Your task to perform on an android device: turn off sleep mode Image 0: 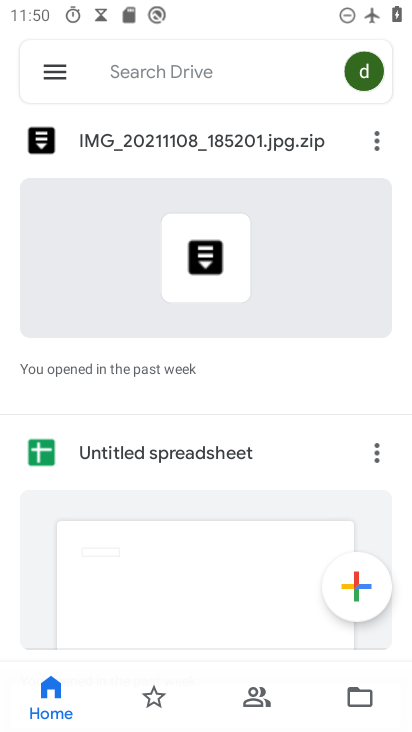
Step 0: press home button
Your task to perform on an android device: turn off sleep mode Image 1: 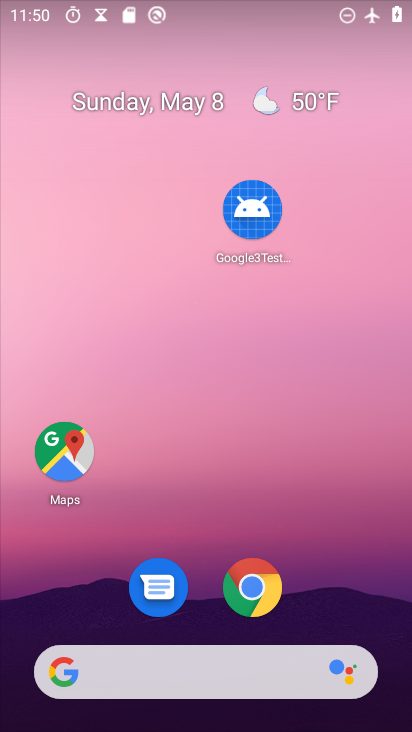
Step 1: drag from (193, 546) to (59, 101)
Your task to perform on an android device: turn off sleep mode Image 2: 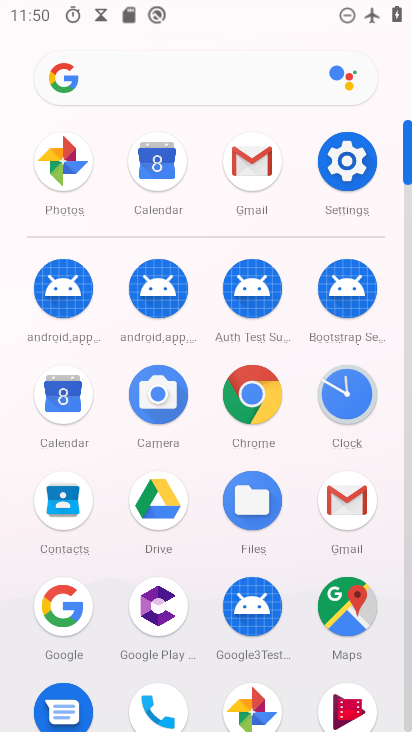
Step 2: click (340, 177)
Your task to perform on an android device: turn off sleep mode Image 3: 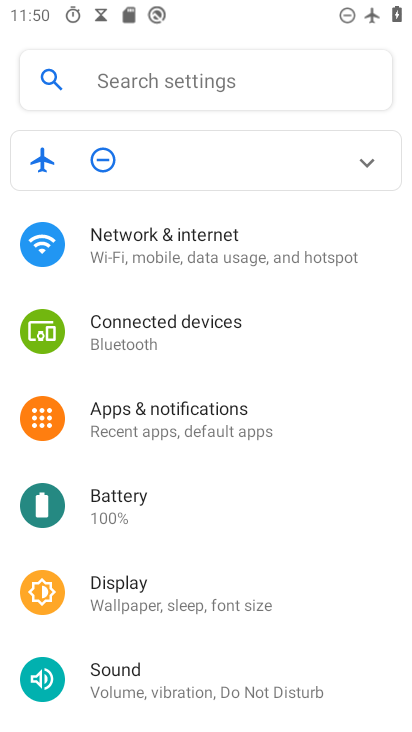
Step 3: click (210, 596)
Your task to perform on an android device: turn off sleep mode Image 4: 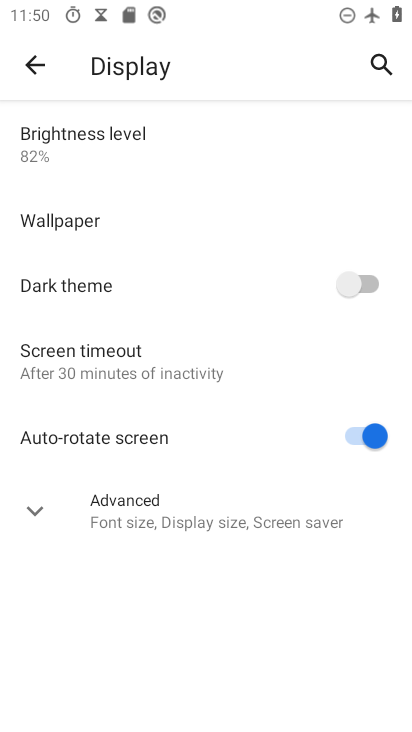
Step 4: click (145, 518)
Your task to perform on an android device: turn off sleep mode Image 5: 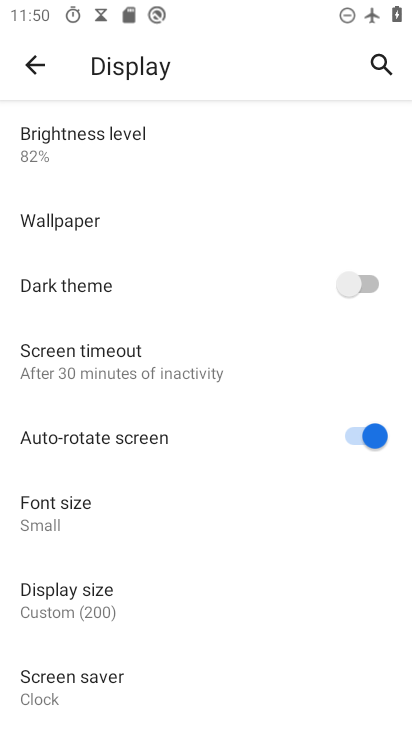
Step 5: task complete